Your task to perform on an android device: allow cookies in the chrome app Image 0: 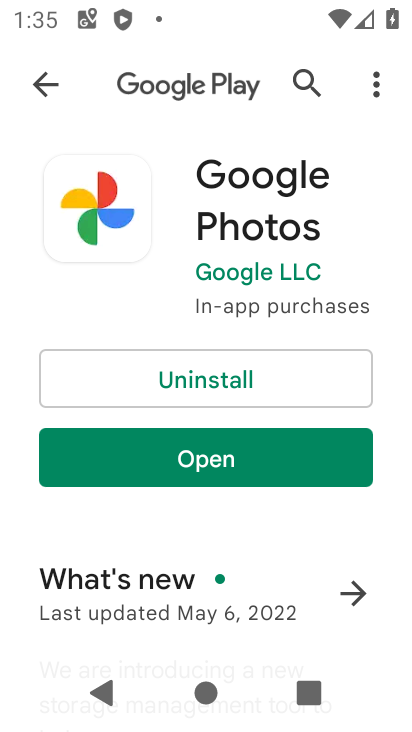
Step 0: press home button
Your task to perform on an android device: allow cookies in the chrome app Image 1: 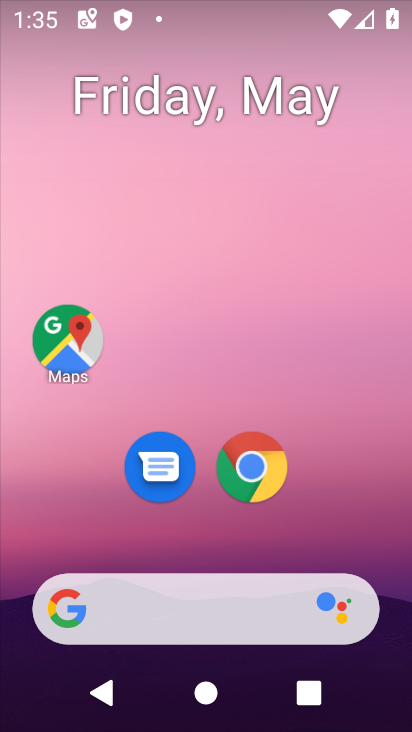
Step 1: click (257, 458)
Your task to perform on an android device: allow cookies in the chrome app Image 2: 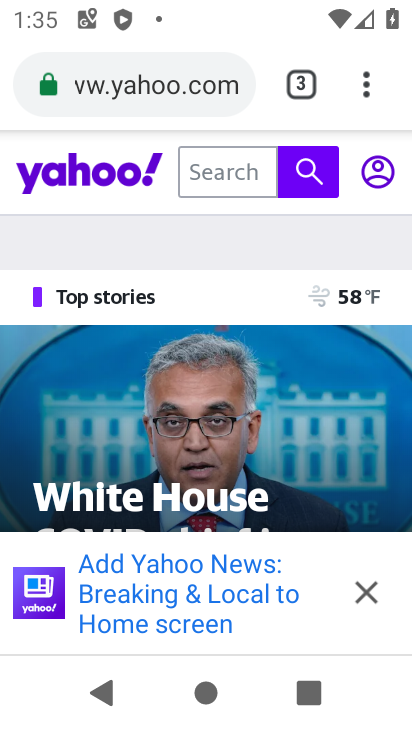
Step 2: click (359, 87)
Your task to perform on an android device: allow cookies in the chrome app Image 3: 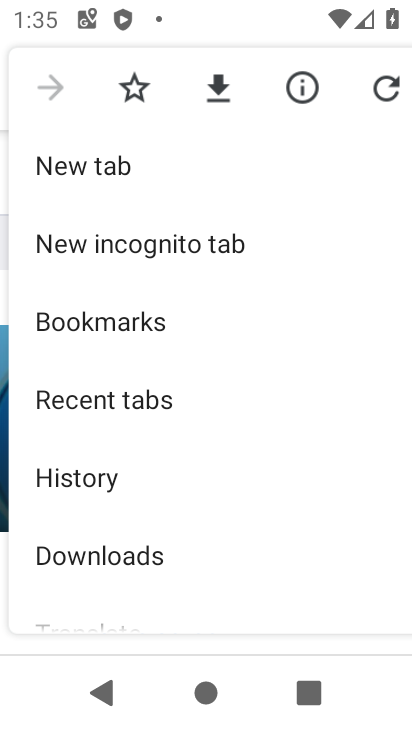
Step 3: drag from (92, 530) to (110, 288)
Your task to perform on an android device: allow cookies in the chrome app Image 4: 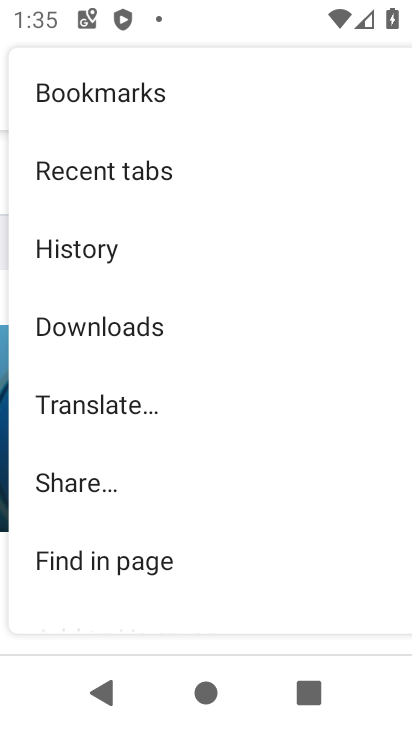
Step 4: drag from (73, 519) to (150, 204)
Your task to perform on an android device: allow cookies in the chrome app Image 5: 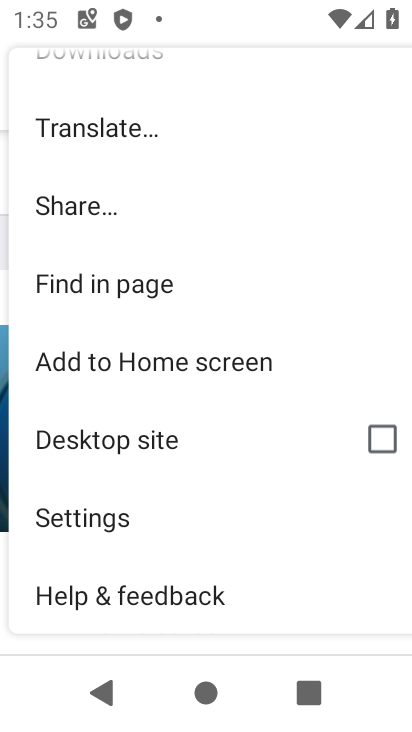
Step 5: click (57, 509)
Your task to perform on an android device: allow cookies in the chrome app Image 6: 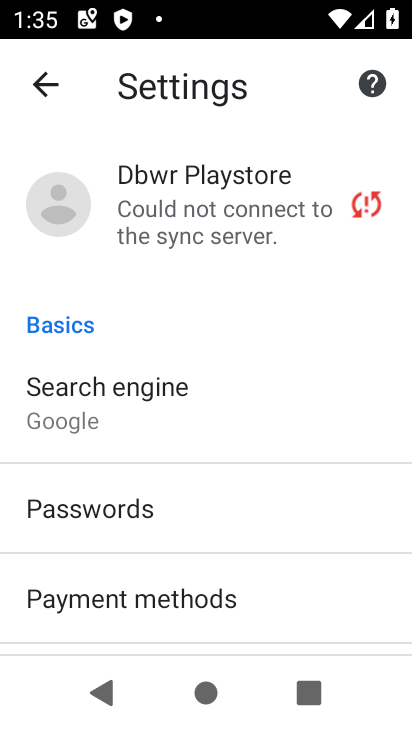
Step 6: drag from (93, 570) to (147, 259)
Your task to perform on an android device: allow cookies in the chrome app Image 7: 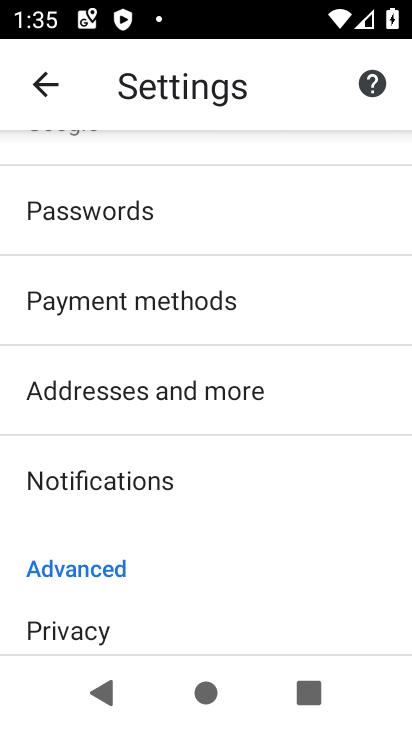
Step 7: drag from (95, 523) to (148, 198)
Your task to perform on an android device: allow cookies in the chrome app Image 8: 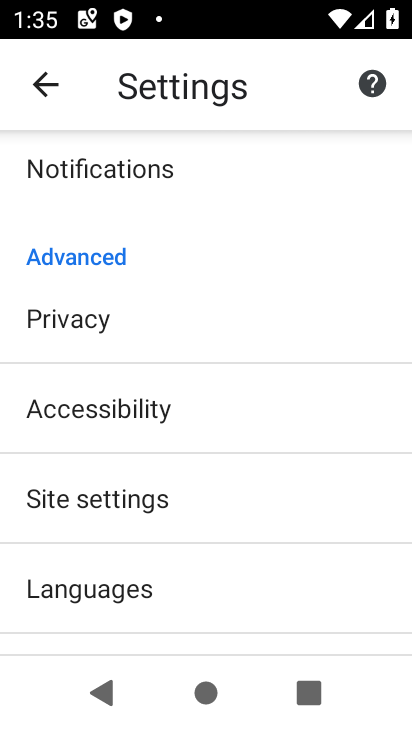
Step 8: click (82, 505)
Your task to perform on an android device: allow cookies in the chrome app Image 9: 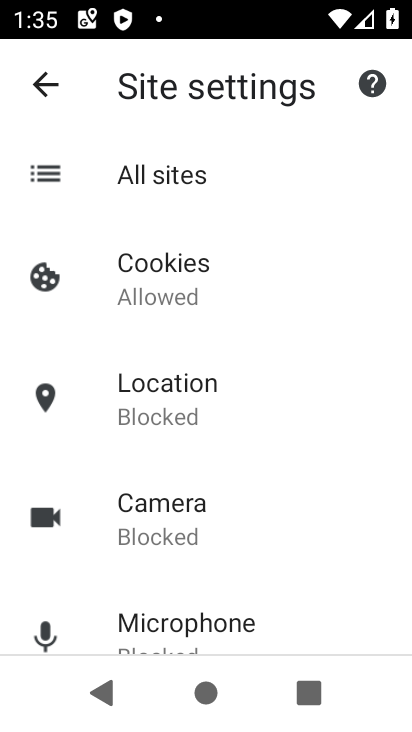
Step 9: click (212, 268)
Your task to perform on an android device: allow cookies in the chrome app Image 10: 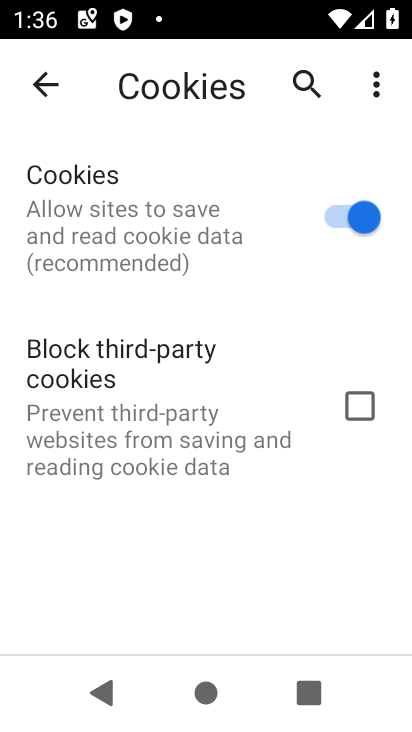
Step 10: task complete